Your task to perform on an android device: Turn off the flashlight Image 0: 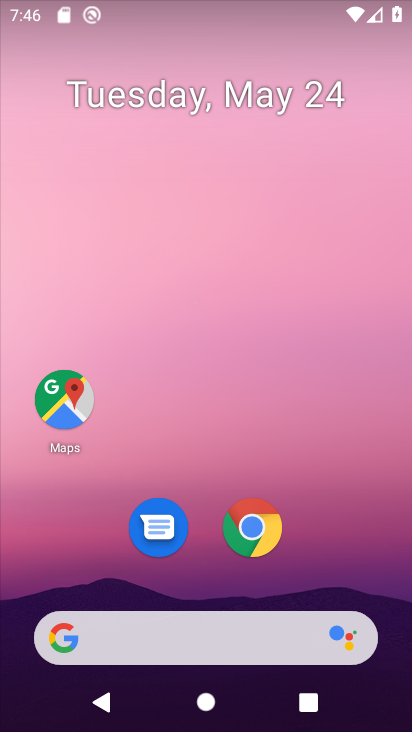
Step 0: drag from (324, 7) to (322, 475)
Your task to perform on an android device: Turn off the flashlight Image 1: 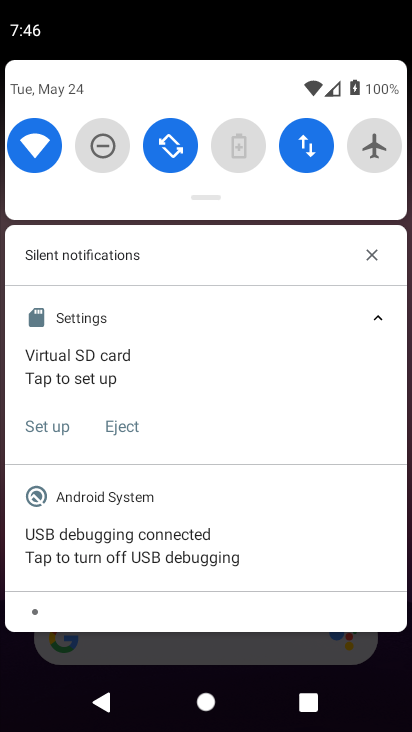
Step 1: task complete